Your task to perform on an android device: Search for the best gaming monitor on Best Buy Image 0: 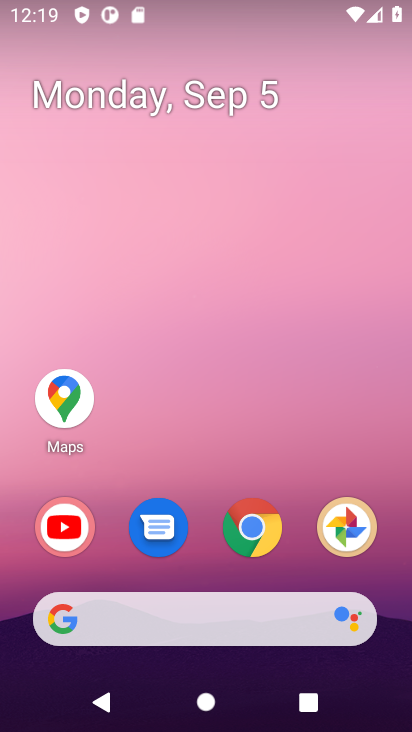
Step 0: click (253, 534)
Your task to perform on an android device: Search for the best gaming monitor on Best Buy Image 1: 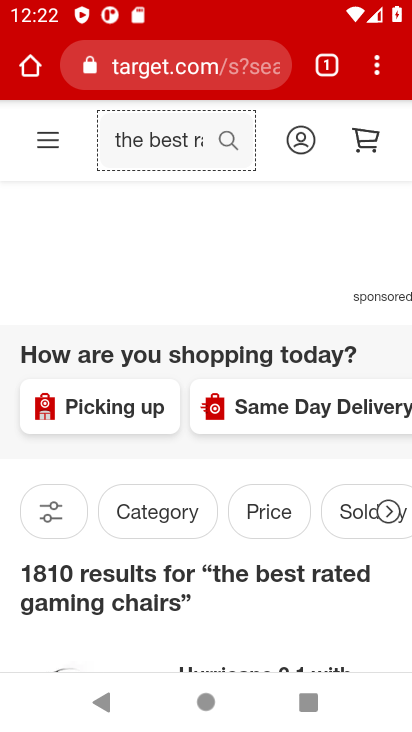
Step 1: click (206, 58)
Your task to perform on an android device: Search for the best gaming monitor on Best Buy Image 2: 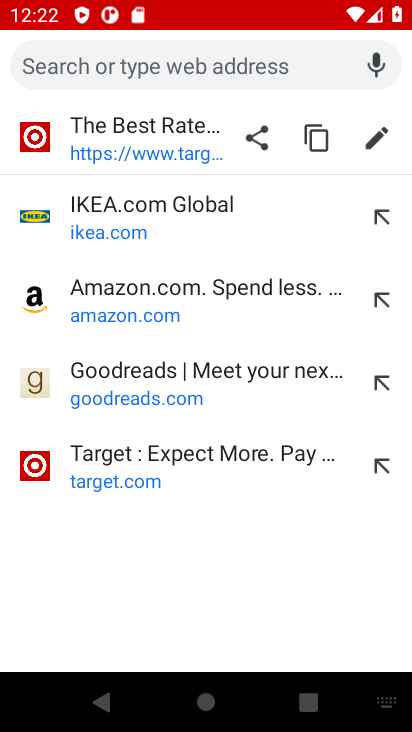
Step 2: type "best buy"
Your task to perform on an android device: Search for the best gaming monitor on Best Buy Image 3: 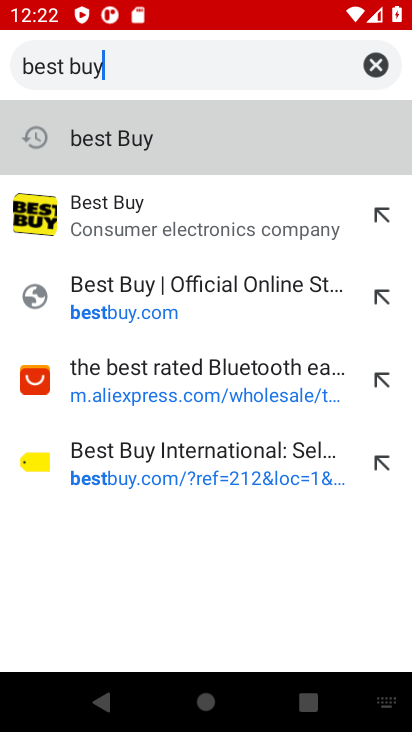
Step 3: click (181, 209)
Your task to perform on an android device: Search for the best gaming monitor on Best Buy Image 4: 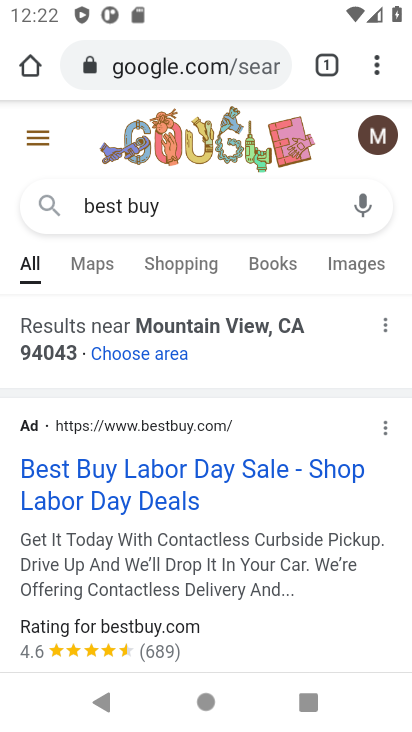
Step 4: click (143, 484)
Your task to perform on an android device: Search for the best gaming monitor on Best Buy Image 5: 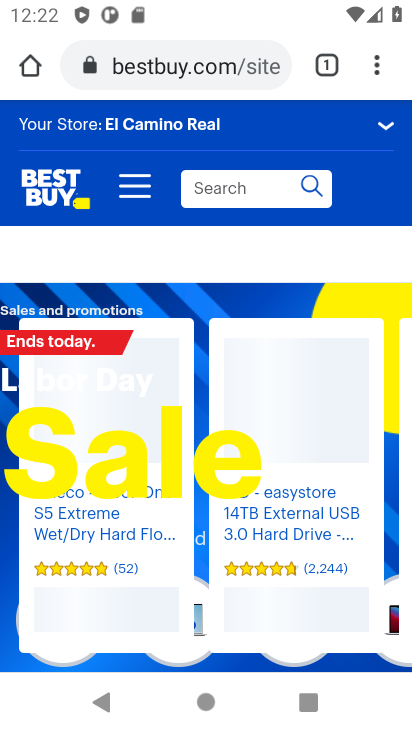
Step 5: click (249, 186)
Your task to perform on an android device: Search for the best gaming monitor on Best Buy Image 6: 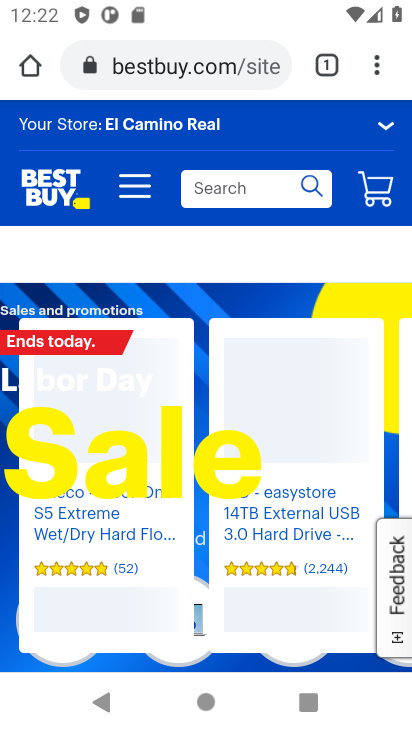
Step 6: click (222, 188)
Your task to perform on an android device: Search for the best gaming monitor on Best Buy Image 7: 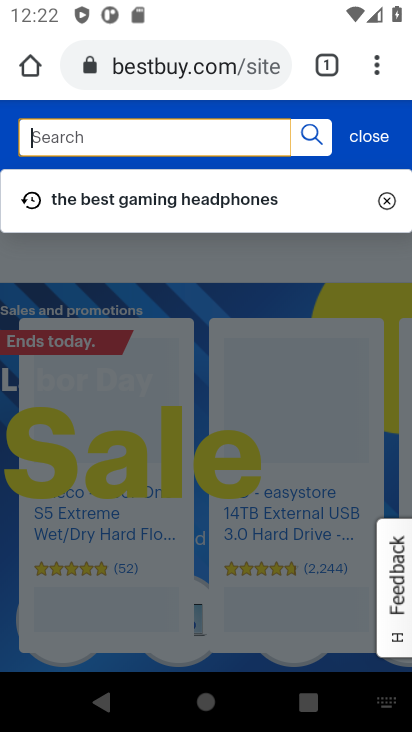
Step 7: type "the best gaming monitor"
Your task to perform on an android device: Search for the best gaming monitor on Best Buy Image 8: 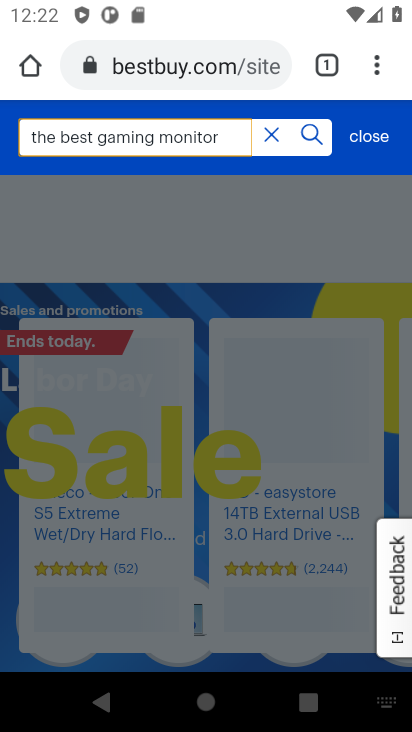
Step 8: click (313, 134)
Your task to perform on an android device: Search for the best gaming monitor on Best Buy Image 9: 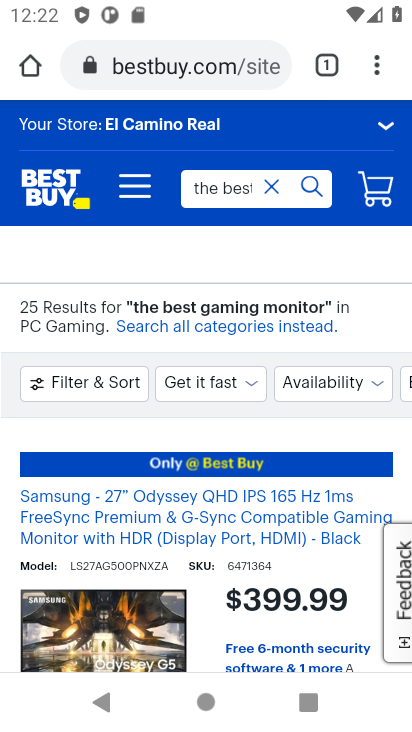
Step 9: task complete